Your task to perform on an android device: toggle wifi Image 0: 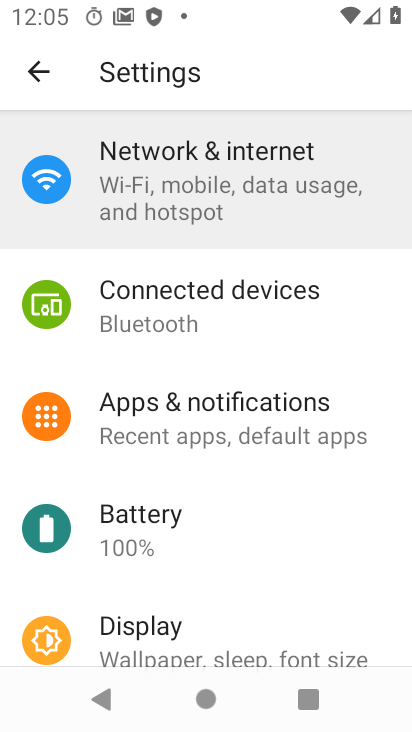
Step 0: drag from (287, 284) to (279, 609)
Your task to perform on an android device: toggle wifi Image 1: 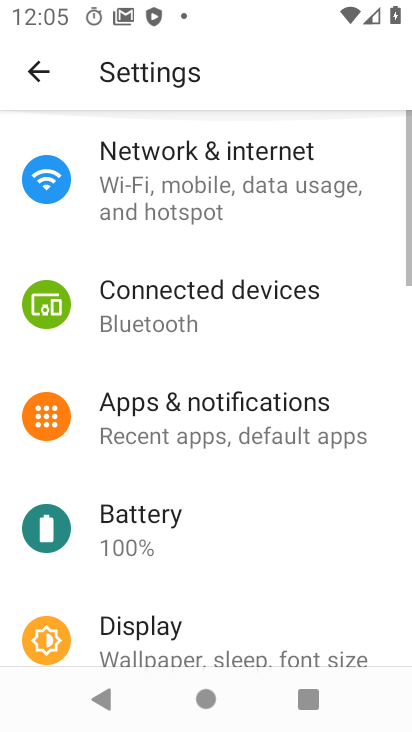
Step 1: drag from (172, 148) to (147, 459)
Your task to perform on an android device: toggle wifi Image 2: 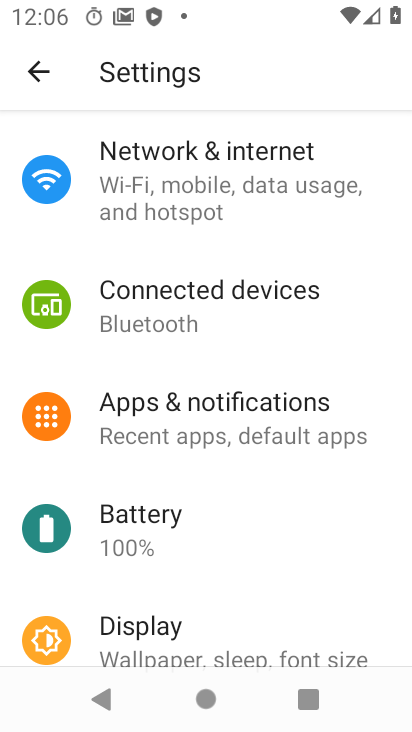
Step 2: click (187, 190)
Your task to perform on an android device: toggle wifi Image 3: 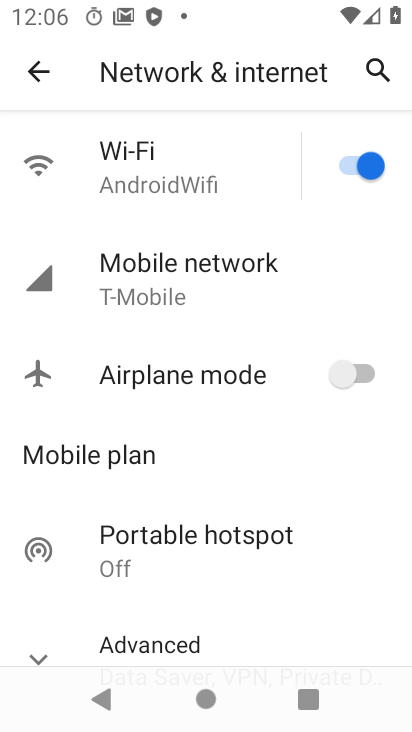
Step 3: click (152, 158)
Your task to perform on an android device: toggle wifi Image 4: 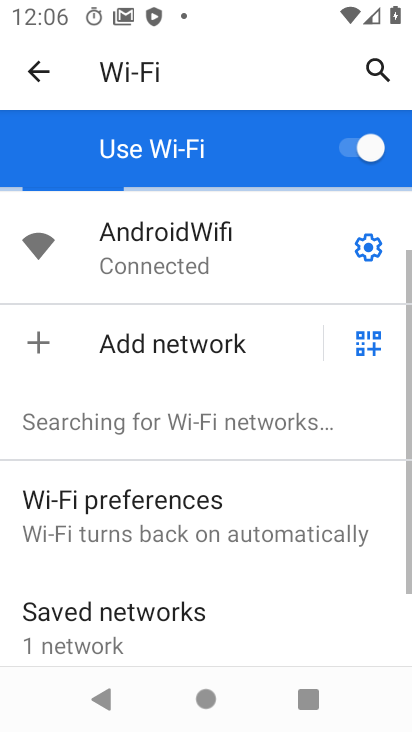
Step 4: click (341, 149)
Your task to perform on an android device: toggle wifi Image 5: 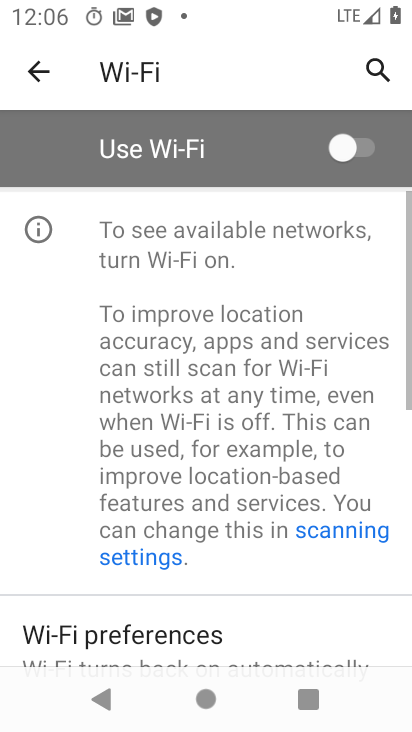
Step 5: task complete